Your task to perform on an android device: turn off notifications in google photos Image 0: 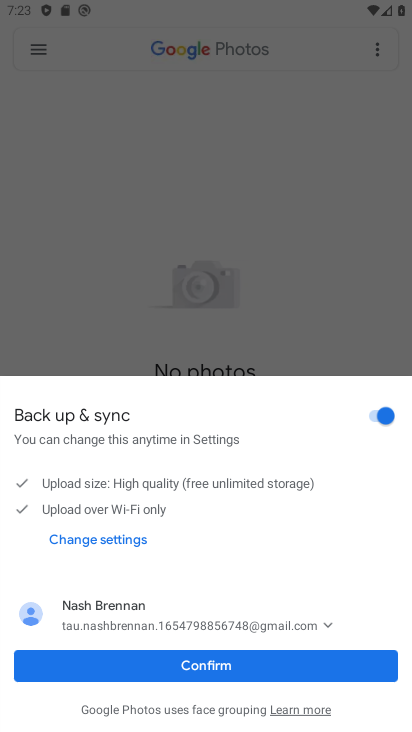
Step 0: press home button
Your task to perform on an android device: turn off notifications in google photos Image 1: 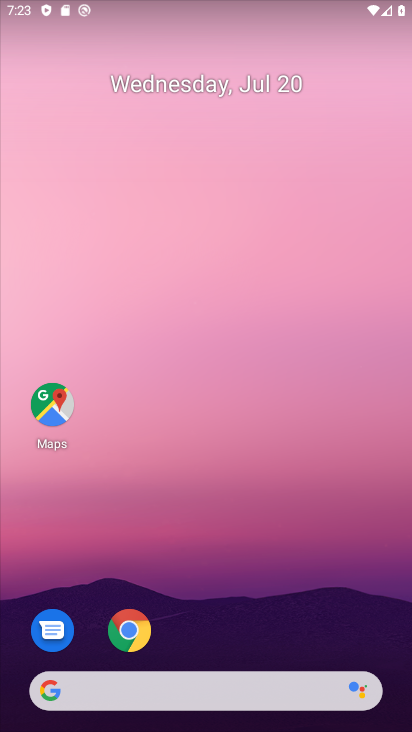
Step 1: drag from (189, 689) to (245, 292)
Your task to perform on an android device: turn off notifications in google photos Image 2: 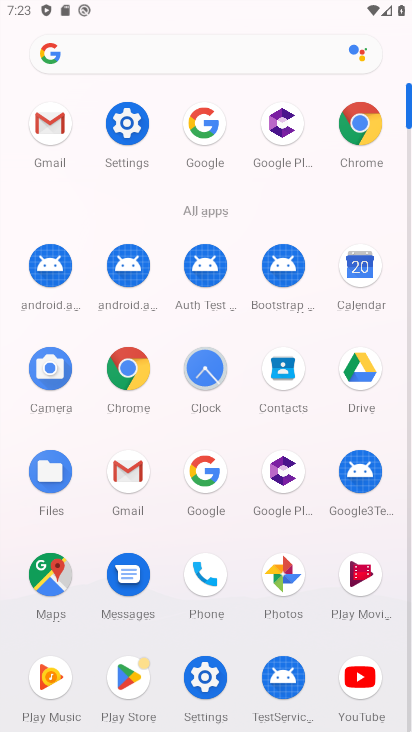
Step 2: click (283, 575)
Your task to perform on an android device: turn off notifications in google photos Image 3: 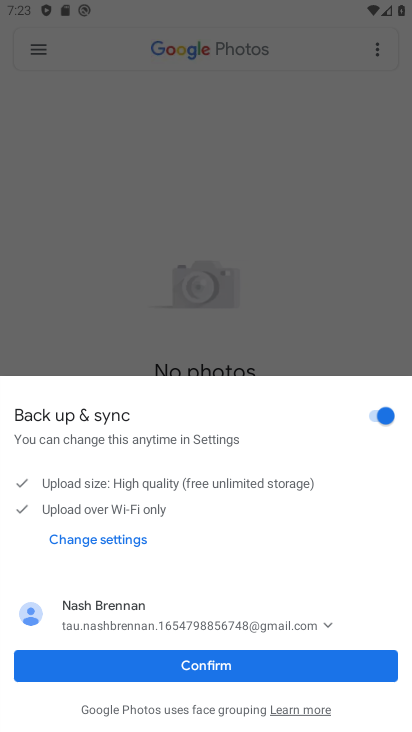
Step 3: click (210, 663)
Your task to perform on an android device: turn off notifications in google photos Image 4: 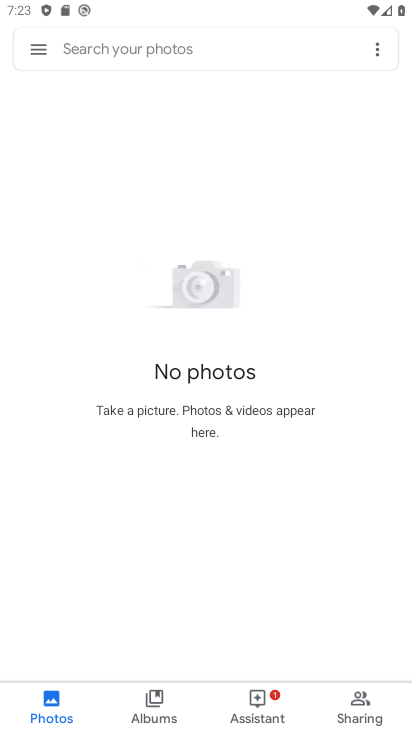
Step 4: click (40, 48)
Your task to perform on an android device: turn off notifications in google photos Image 5: 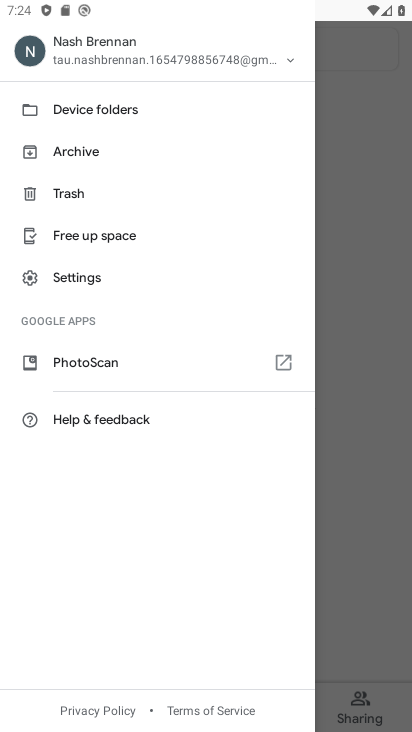
Step 5: click (77, 278)
Your task to perform on an android device: turn off notifications in google photos Image 6: 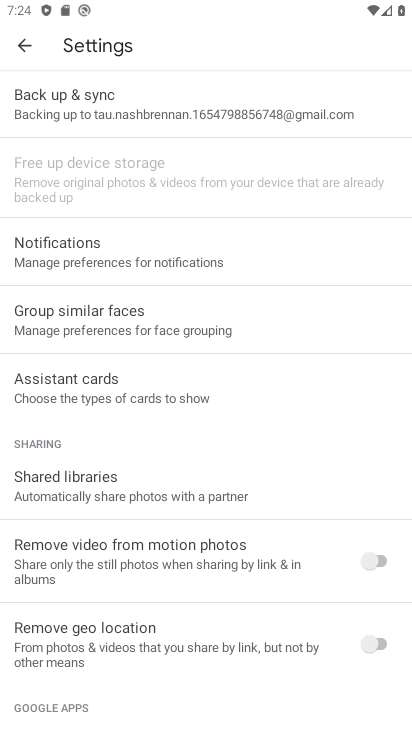
Step 6: click (72, 254)
Your task to perform on an android device: turn off notifications in google photos Image 7: 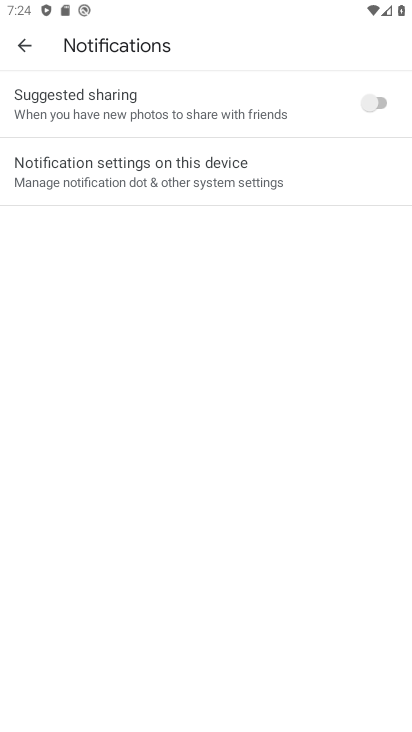
Step 7: click (131, 166)
Your task to perform on an android device: turn off notifications in google photos Image 8: 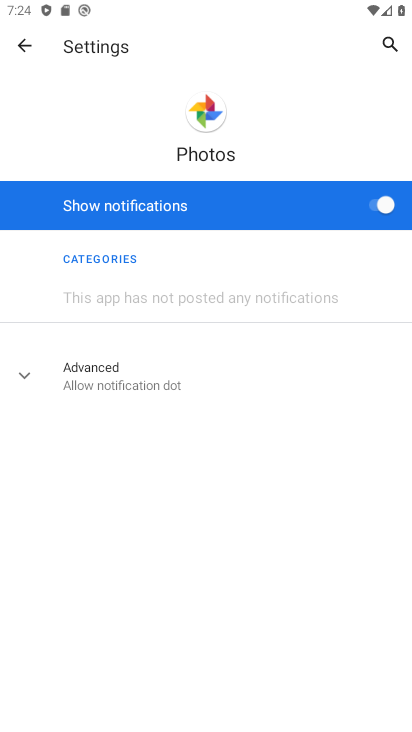
Step 8: click (375, 205)
Your task to perform on an android device: turn off notifications in google photos Image 9: 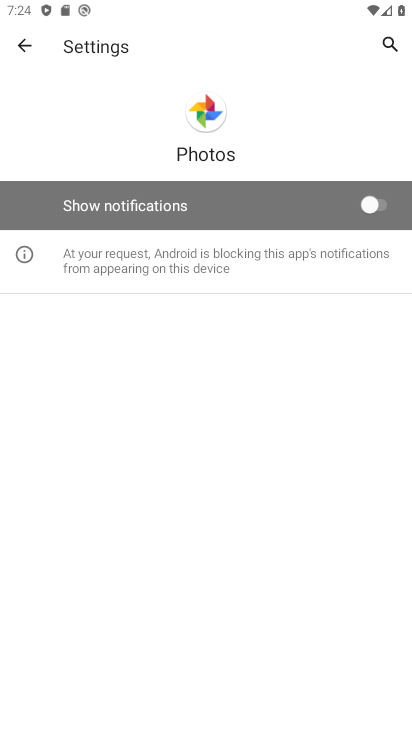
Step 9: task complete